Your task to perform on an android device: Open privacy settings Image 0: 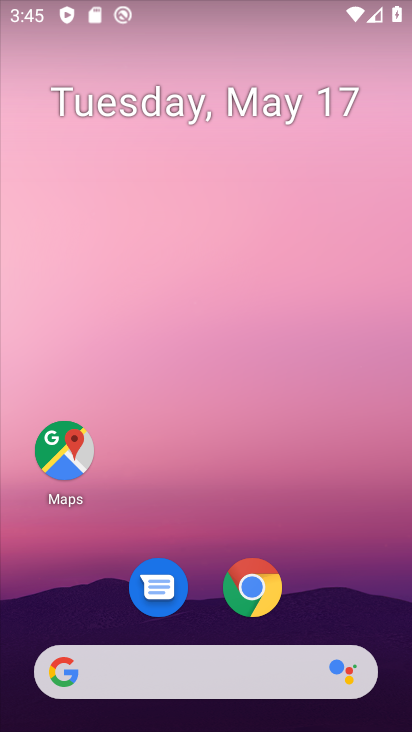
Step 0: drag from (295, 686) to (344, 194)
Your task to perform on an android device: Open privacy settings Image 1: 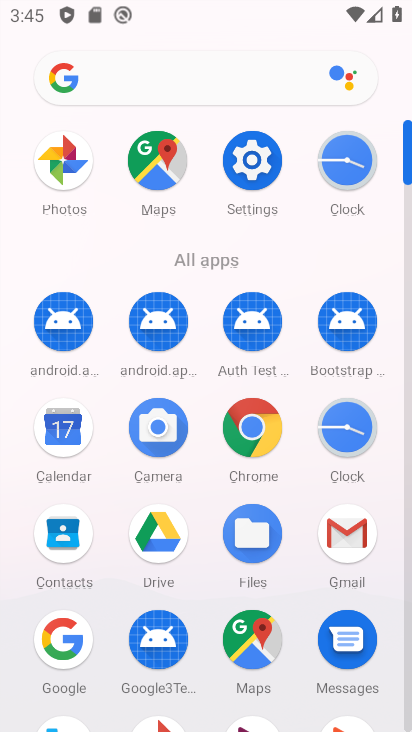
Step 1: click (237, 156)
Your task to perform on an android device: Open privacy settings Image 2: 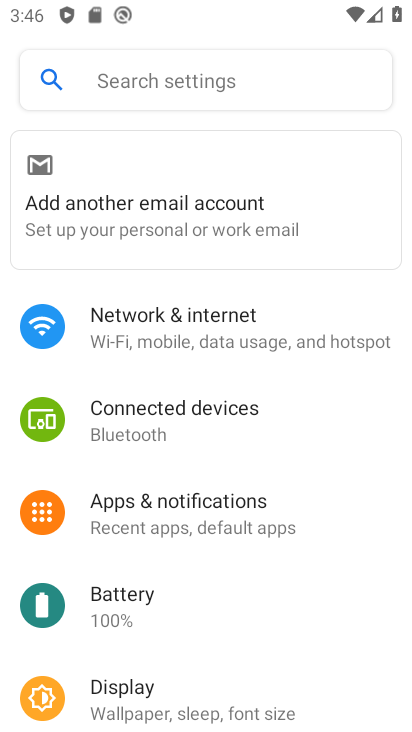
Step 2: drag from (184, 513) to (198, 146)
Your task to perform on an android device: Open privacy settings Image 3: 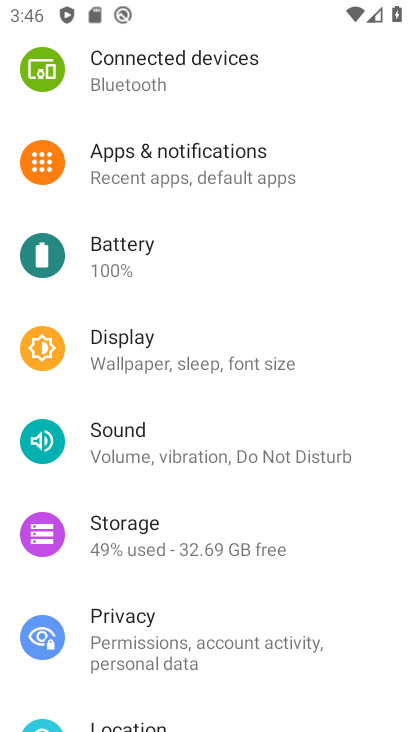
Step 3: click (104, 615)
Your task to perform on an android device: Open privacy settings Image 4: 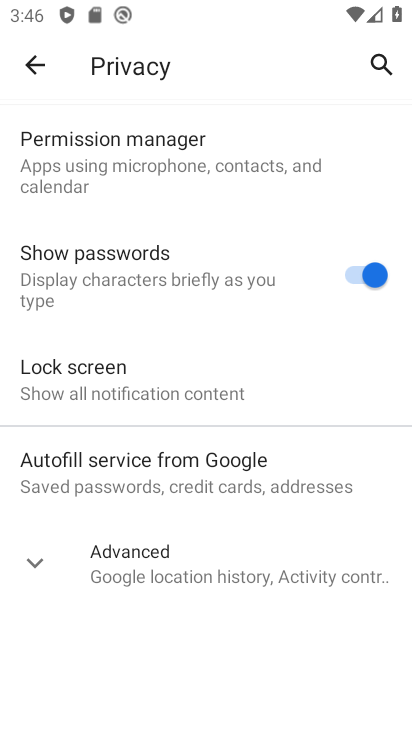
Step 4: task complete